Your task to perform on an android device: Open display settings Image 0: 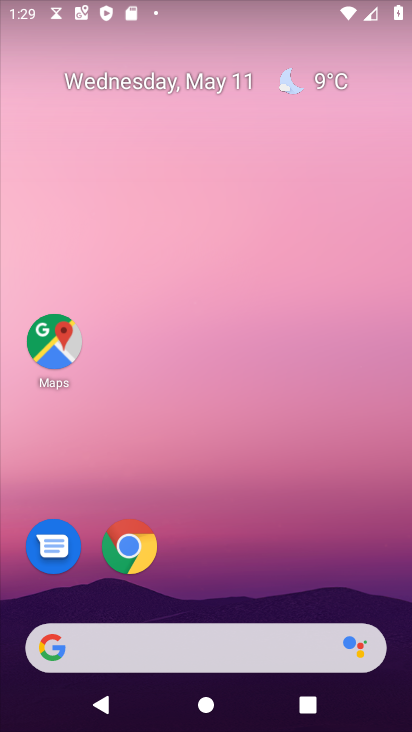
Step 0: drag from (261, 630) to (272, 78)
Your task to perform on an android device: Open display settings Image 1: 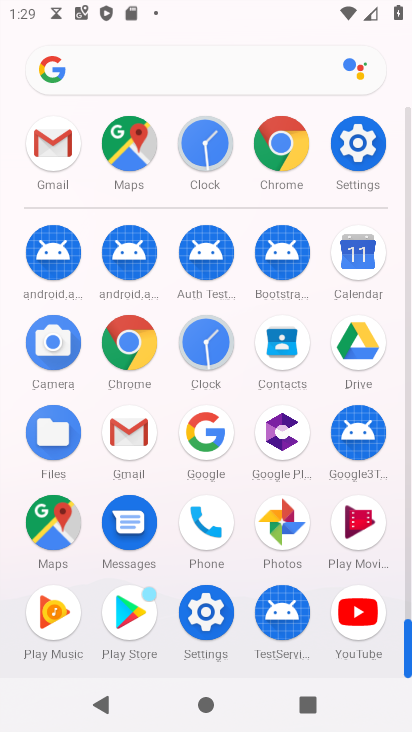
Step 1: click (357, 150)
Your task to perform on an android device: Open display settings Image 2: 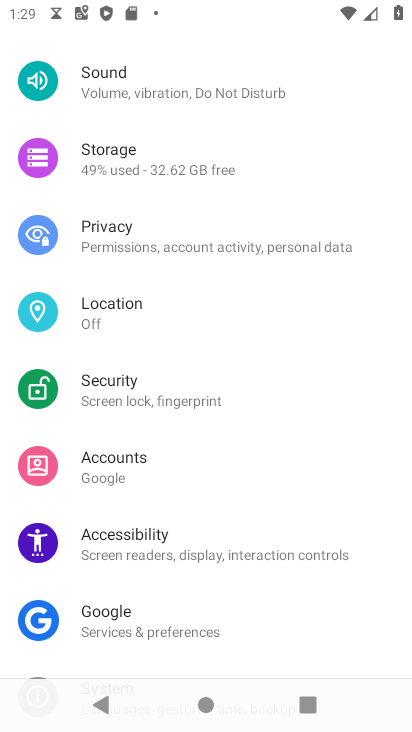
Step 2: drag from (180, 238) to (248, 646)
Your task to perform on an android device: Open display settings Image 3: 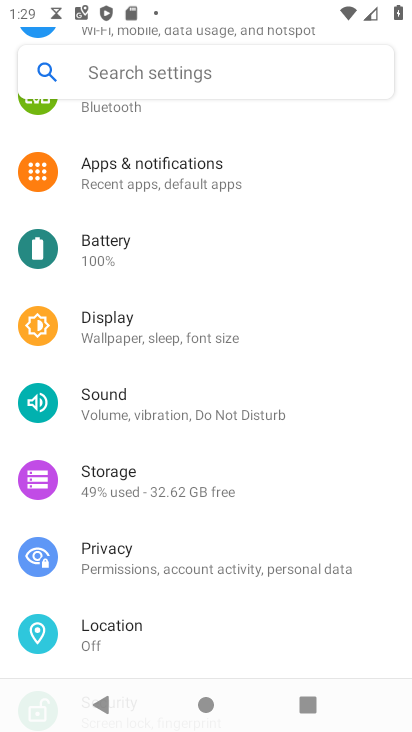
Step 3: click (146, 351)
Your task to perform on an android device: Open display settings Image 4: 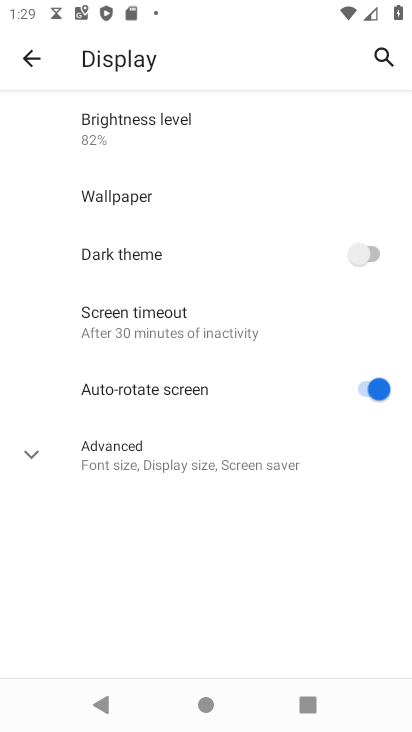
Step 4: task complete